Your task to perform on an android device: open app "Lyft - Rideshare, Bikes, Scooters & Transit" (install if not already installed) Image 0: 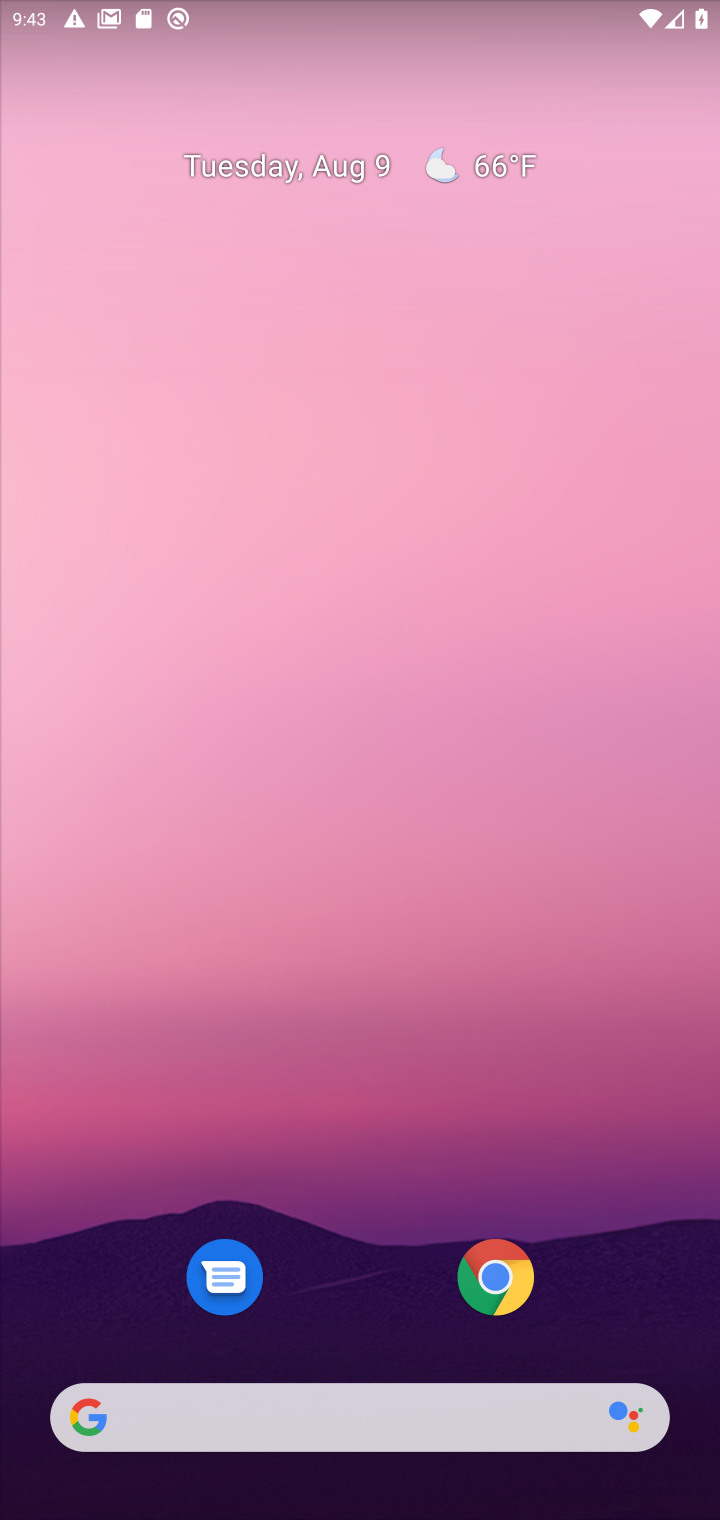
Step 0: drag from (378, 1342) to (286, 42)
Your task to perform on an android device: open app "Lyft - Rideshare, Bikes, Scooters & Transit" (install if not already installed) Image 1: 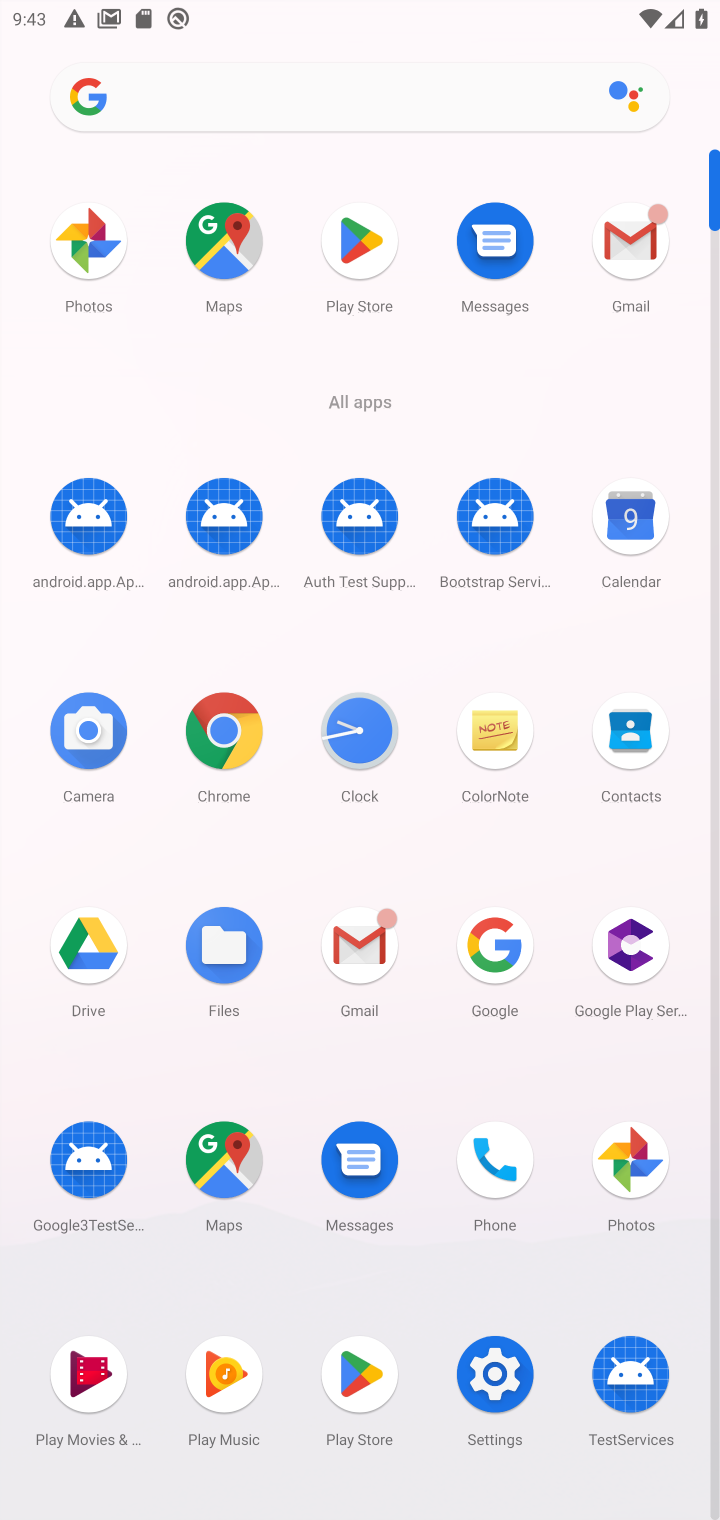
Step 1: click (346, 1400)
Your task to perform on an android device: open app "Lyft - Rideshare, Bikes, Scooters & Transit" (install if not already installed) Image 2: 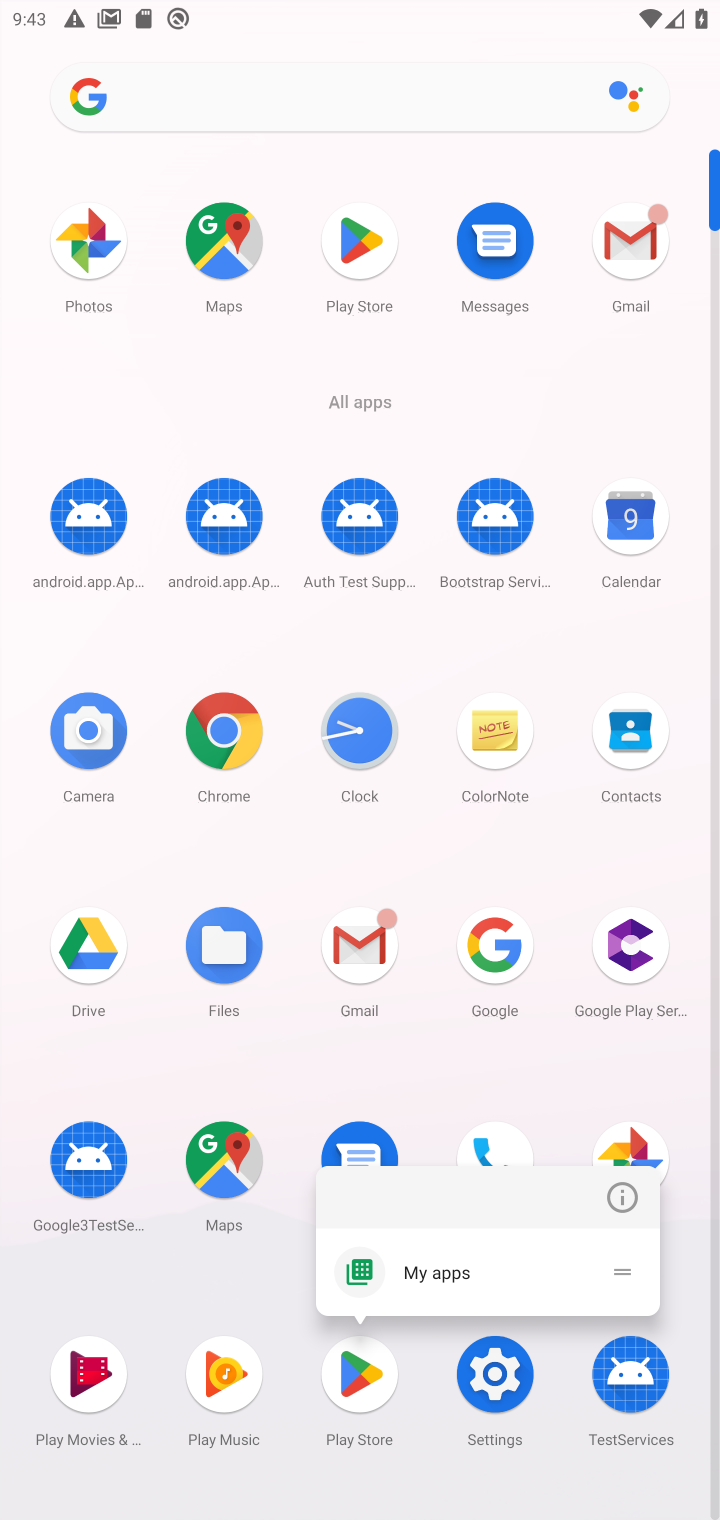
Step 2: click (350, 1374)
Your task to perform on an android device: open app "Lyft - Rideshare, Bikes, Scooters & Transit" (install if not already installed) Image 3: 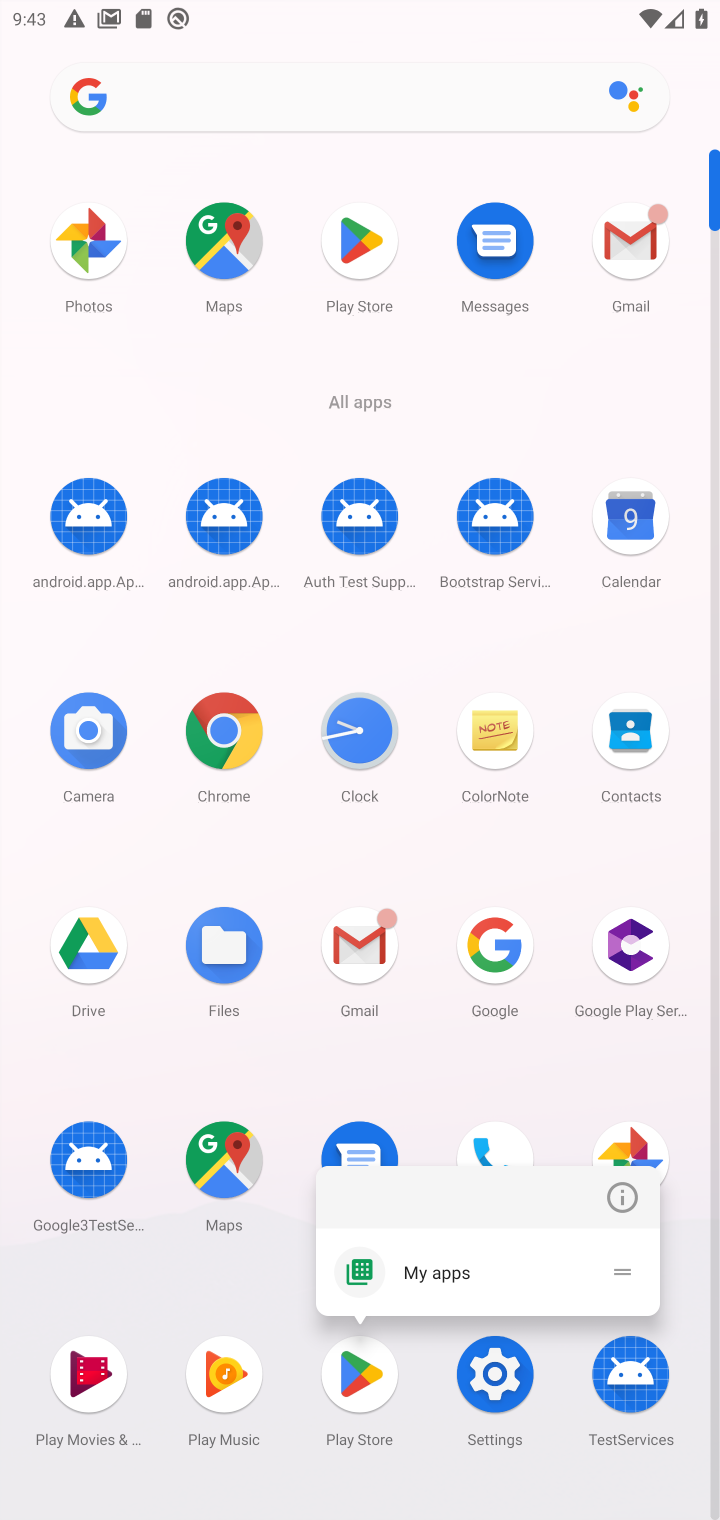
Step 3: click (356, 1410)
Your task to perform on an android device: open app "Lyft - Rideshare, Bikes, Scooters & Transit" (install if not already installed) Image 4: 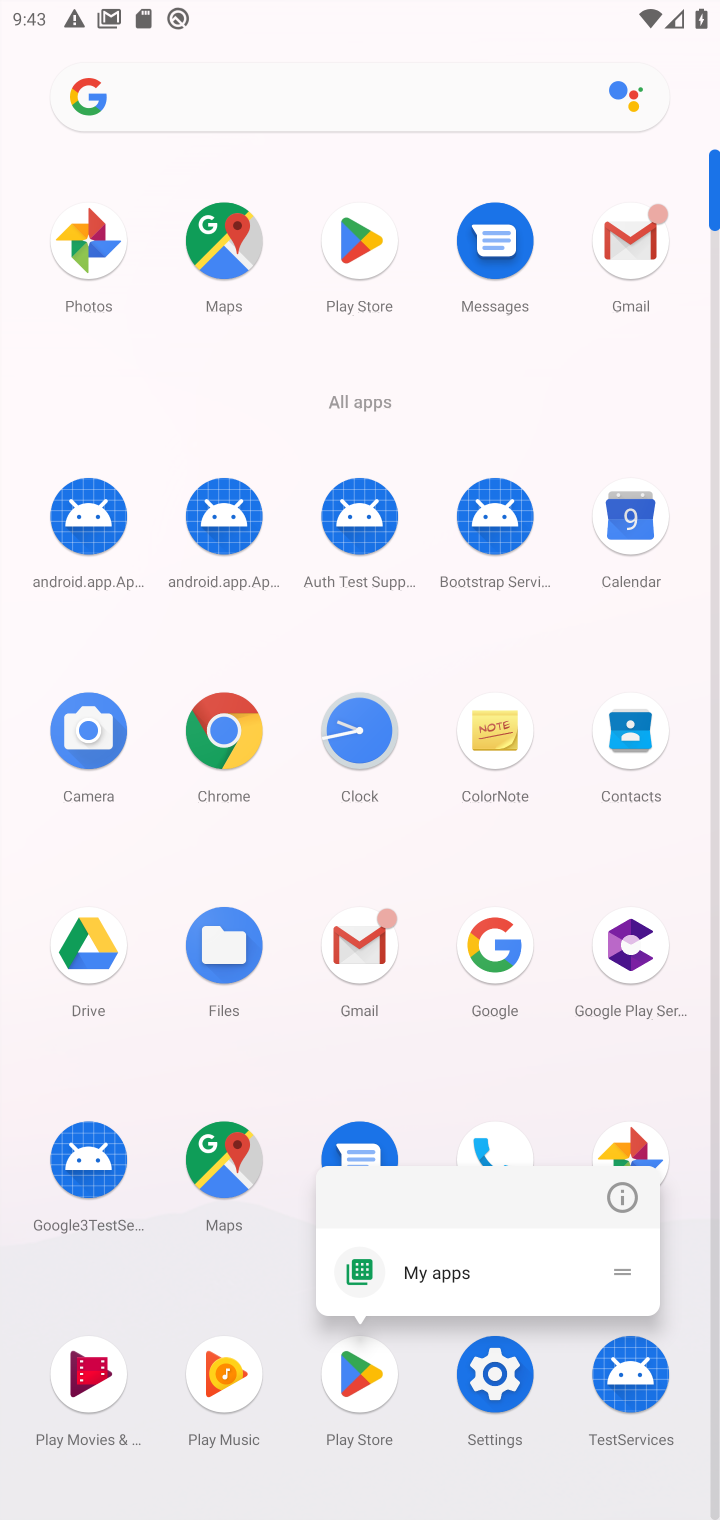
Step 4: click (357, 1412)
Your task to perform on an android device: open app "Lyft - Rideshare, Bikes, Scooters & Transit" (install if not already installed) Image 5: 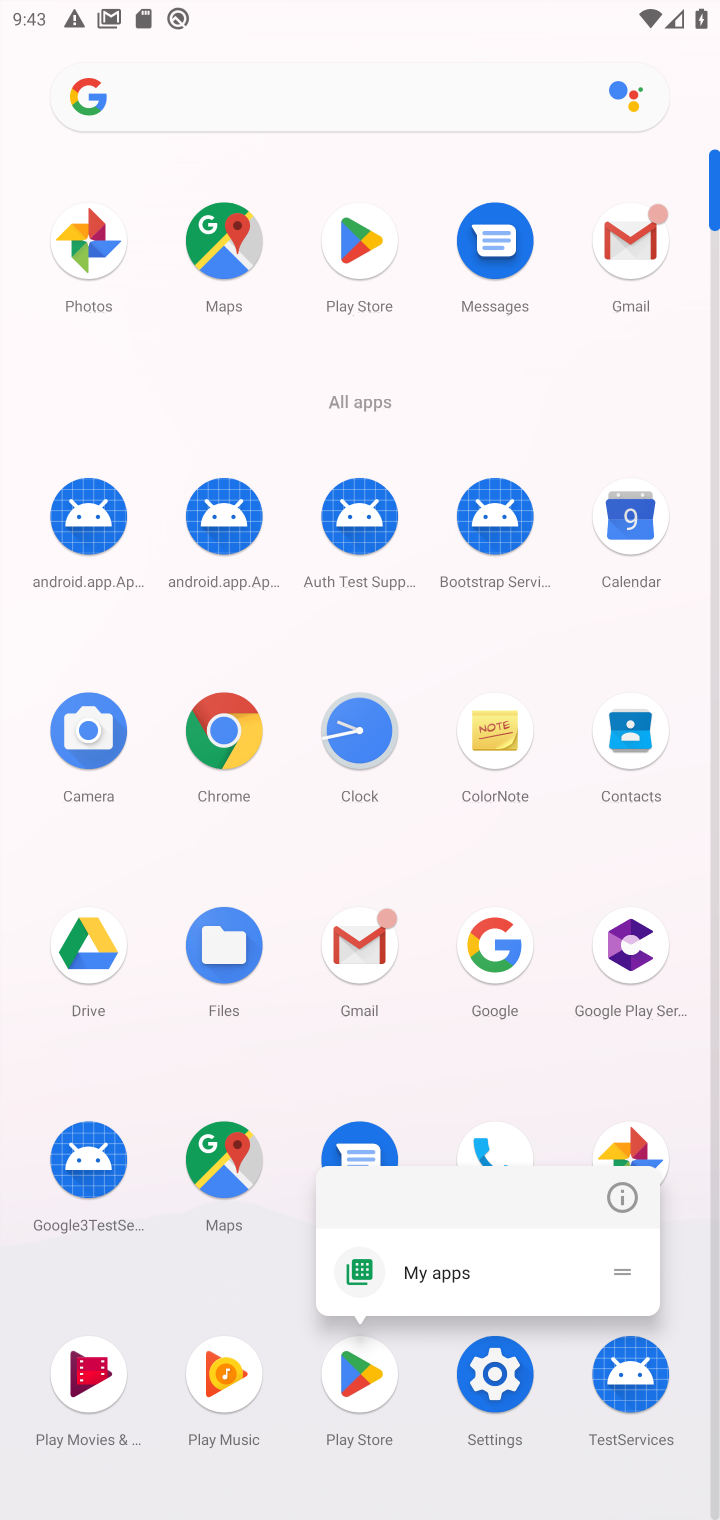
Step 5: click (368, 1390)
Your task to perform on an android device: open app "Lyft - Rideshare, Bikes, Scooters & Transit" (install if not already installed) Image 6: 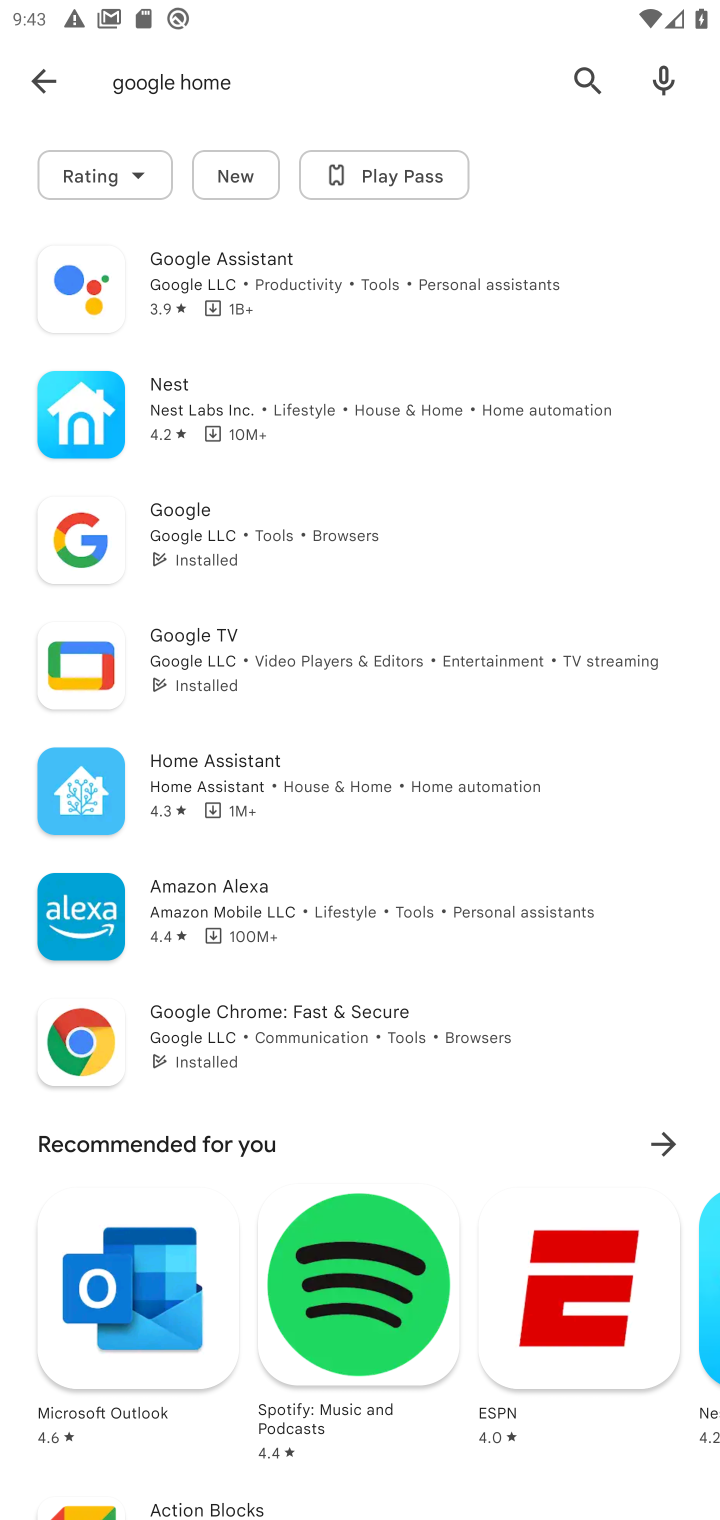
Step 6: click (578, 73)
Your task to perform on an android device: open app "Lyft - Rideshare, Bikes, Scooters & Transit" (install if not already installed) Image 7: 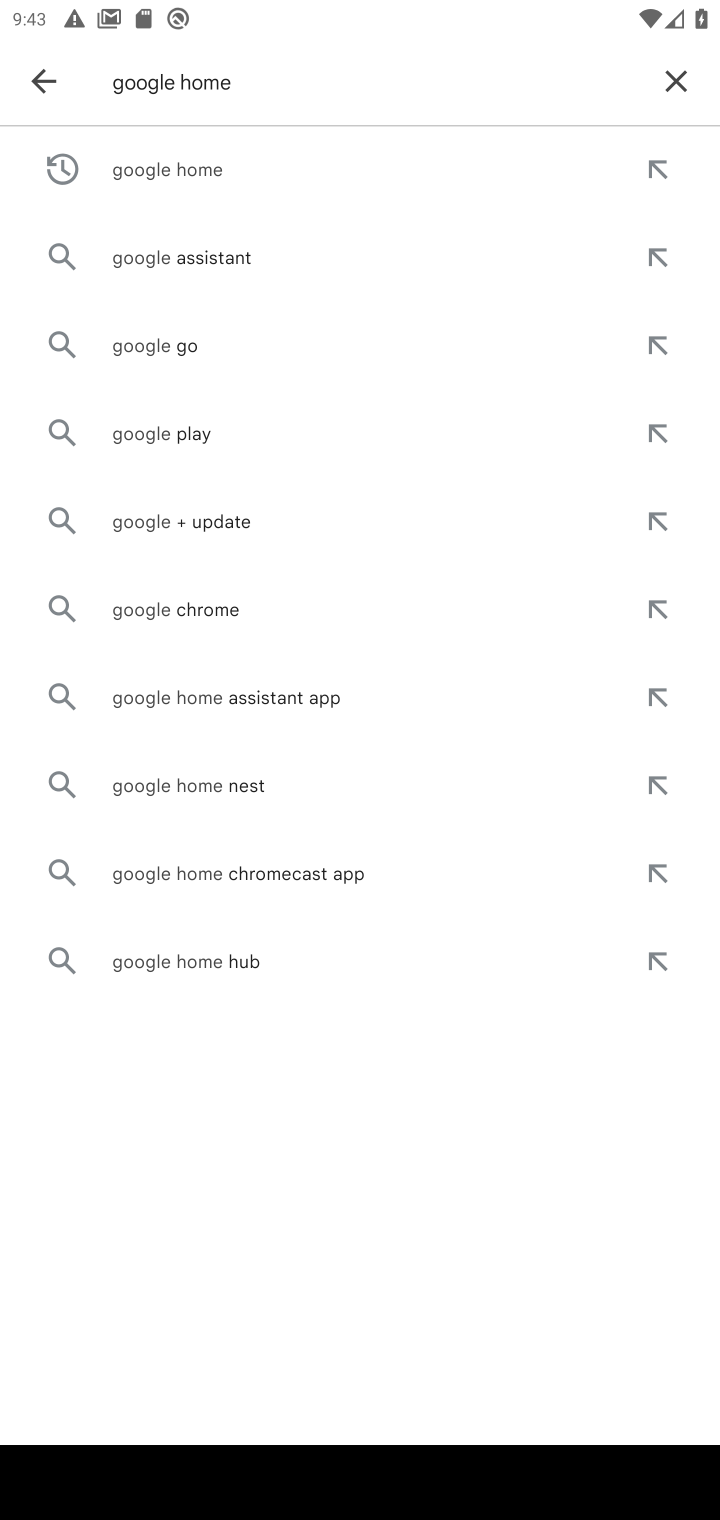
Step 7: click (668, 72)
Your task to perform on an android device: open app "Lyft - Rideshare, Bikes, Scooters & Transit" (install if not already installed) Image 8: 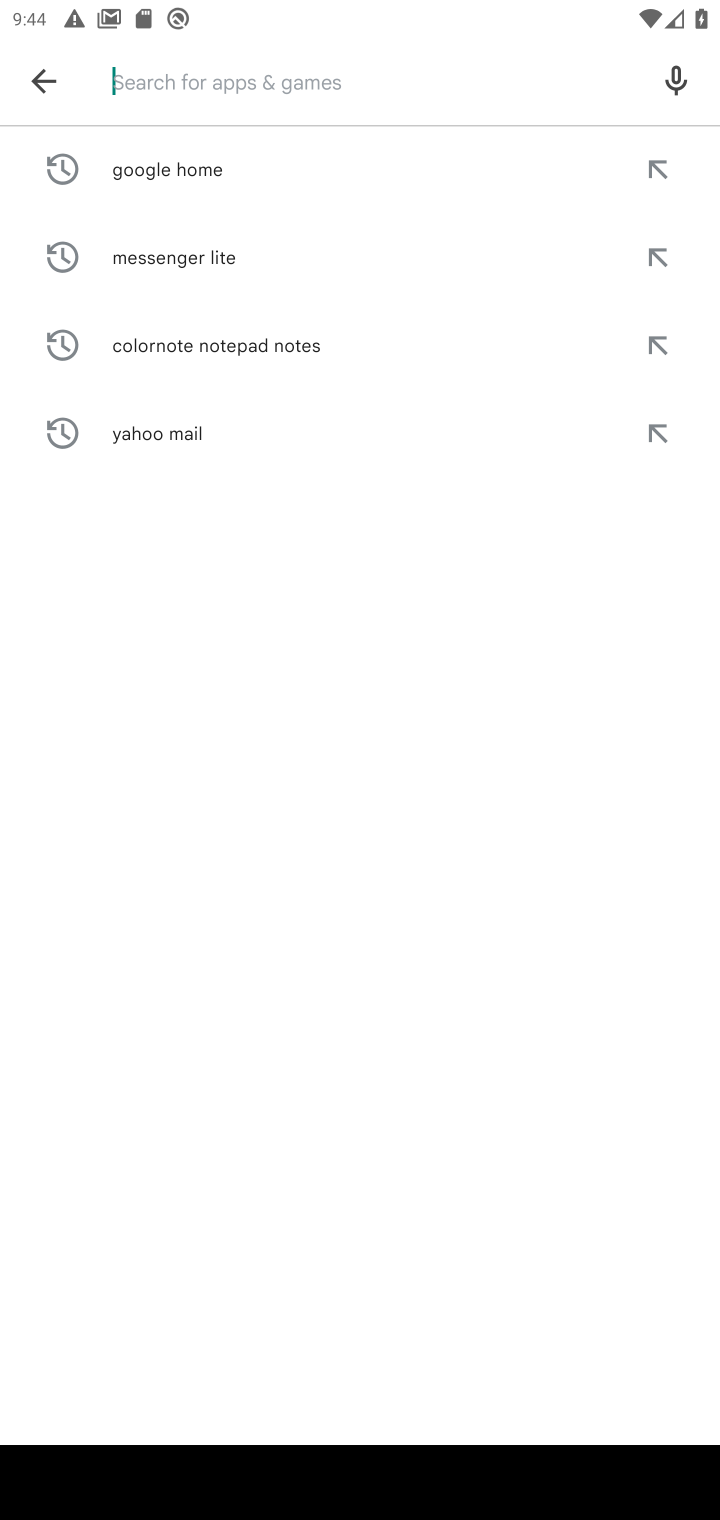
Step 8: type "Lyft - Rideshare, Bikes, Scooters & Transit"
Your task to perform on an android device: open app "Lyft - Rideshare, Bikes, Scooters & Transit" (install if not already installed) Image 9: 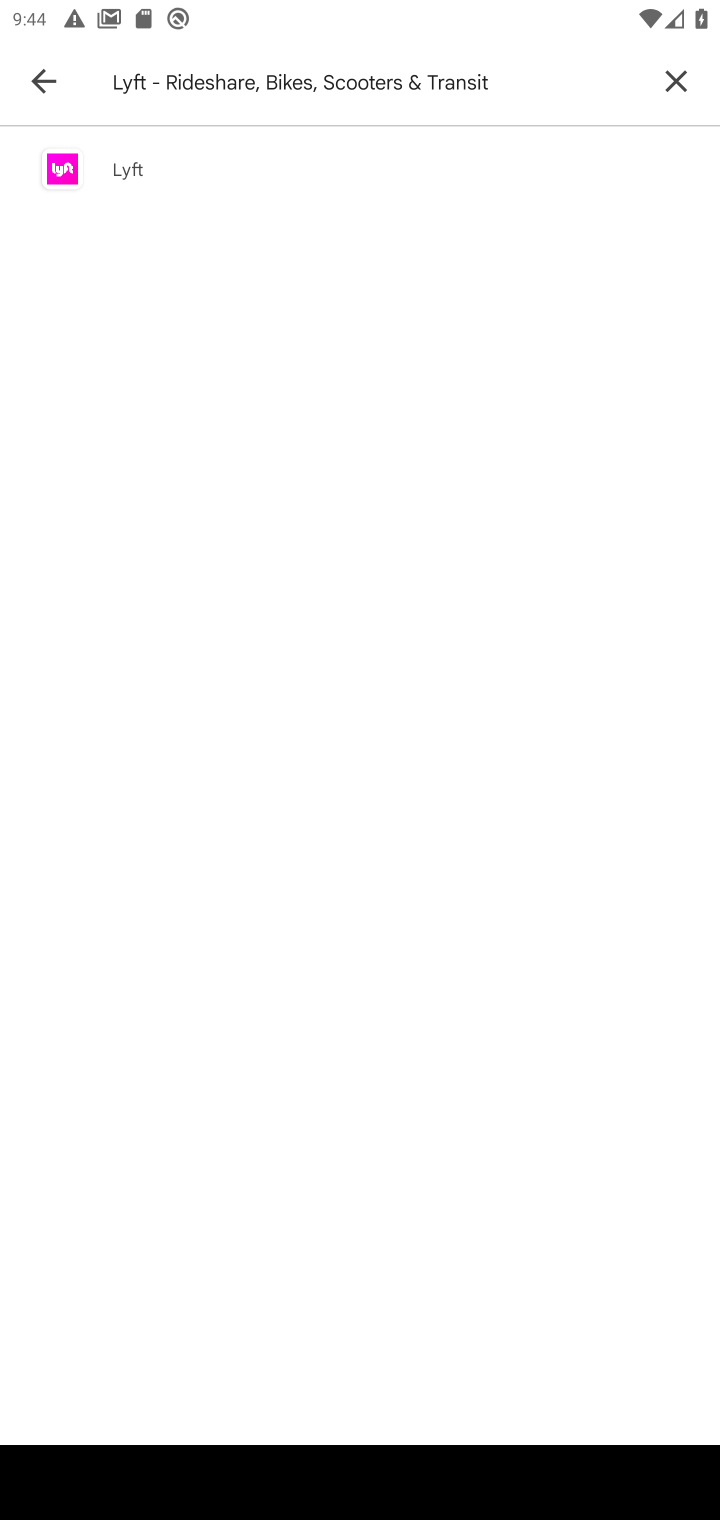
Step 9: click (173, 149)
Your task to perform on an android device: open app "Lyft - Rideshare, Bikes, Scooters & Transit" (install if not already installed) Image 10: 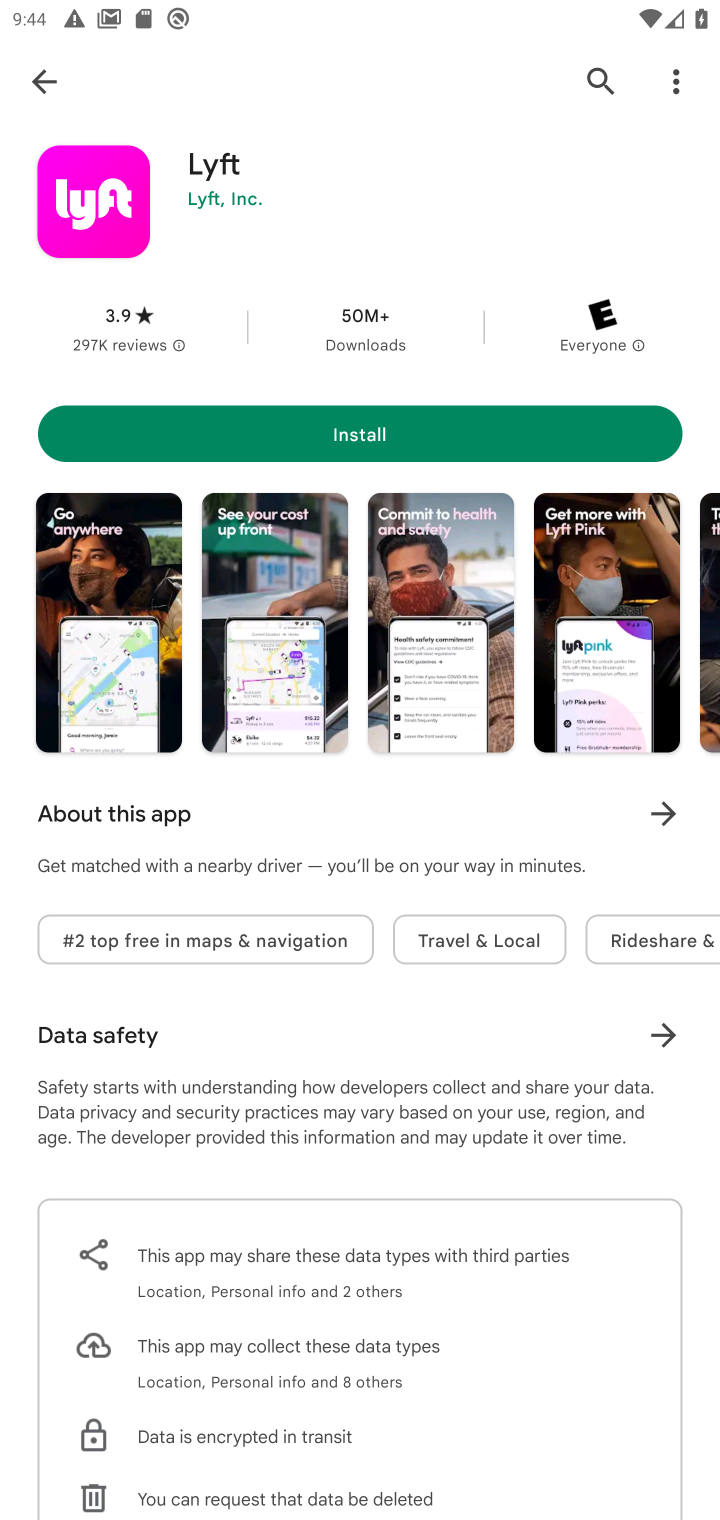
Step 10: click (349, 412)
Your task to perform on an android device: open app "Lyft - Rideshare, Bikes, Scooters & Transit" (install if not already installed) Image 11: 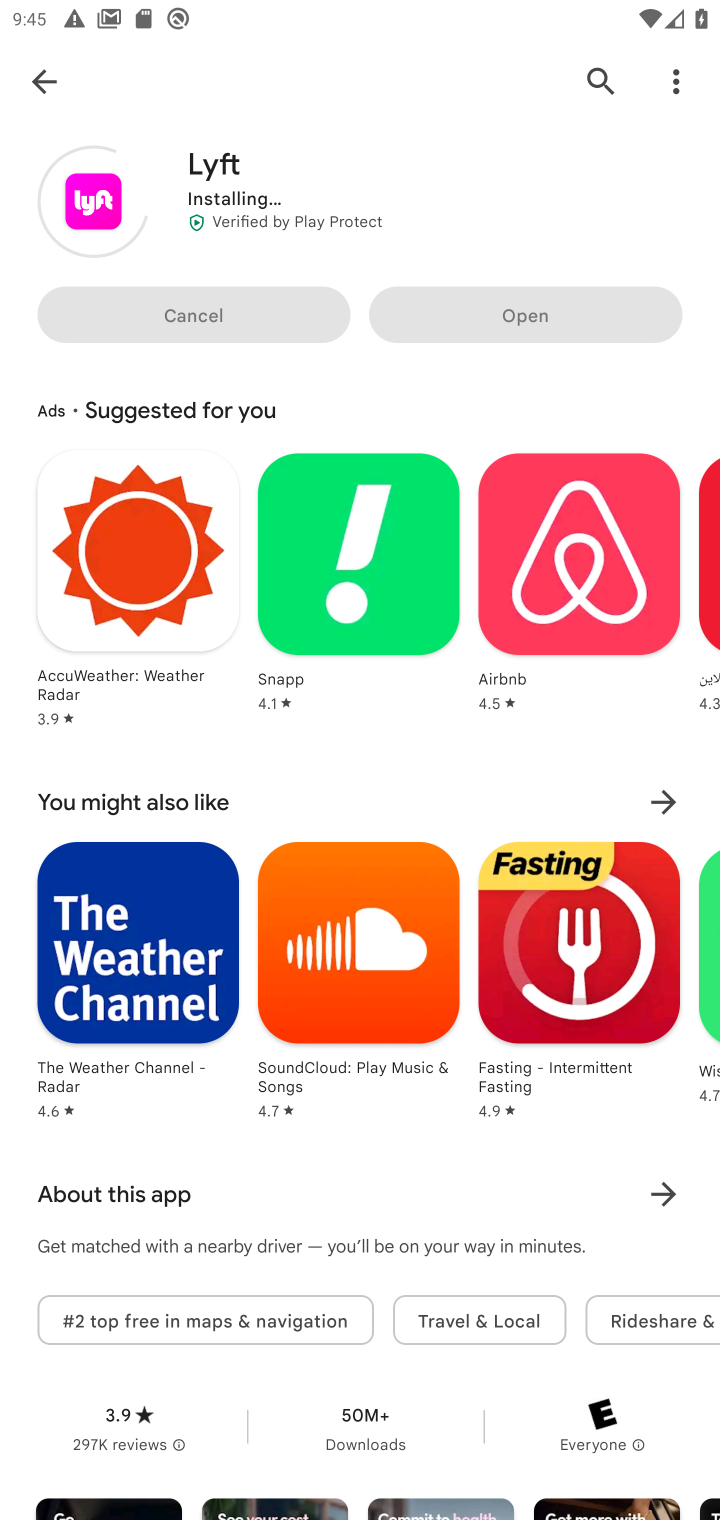
Step 11: click (38, 202)
Your task to perform on an android device: open app "Lyft - Rideshare, Bikes, Scooters & Transit" (install if not already installed) Image 12: 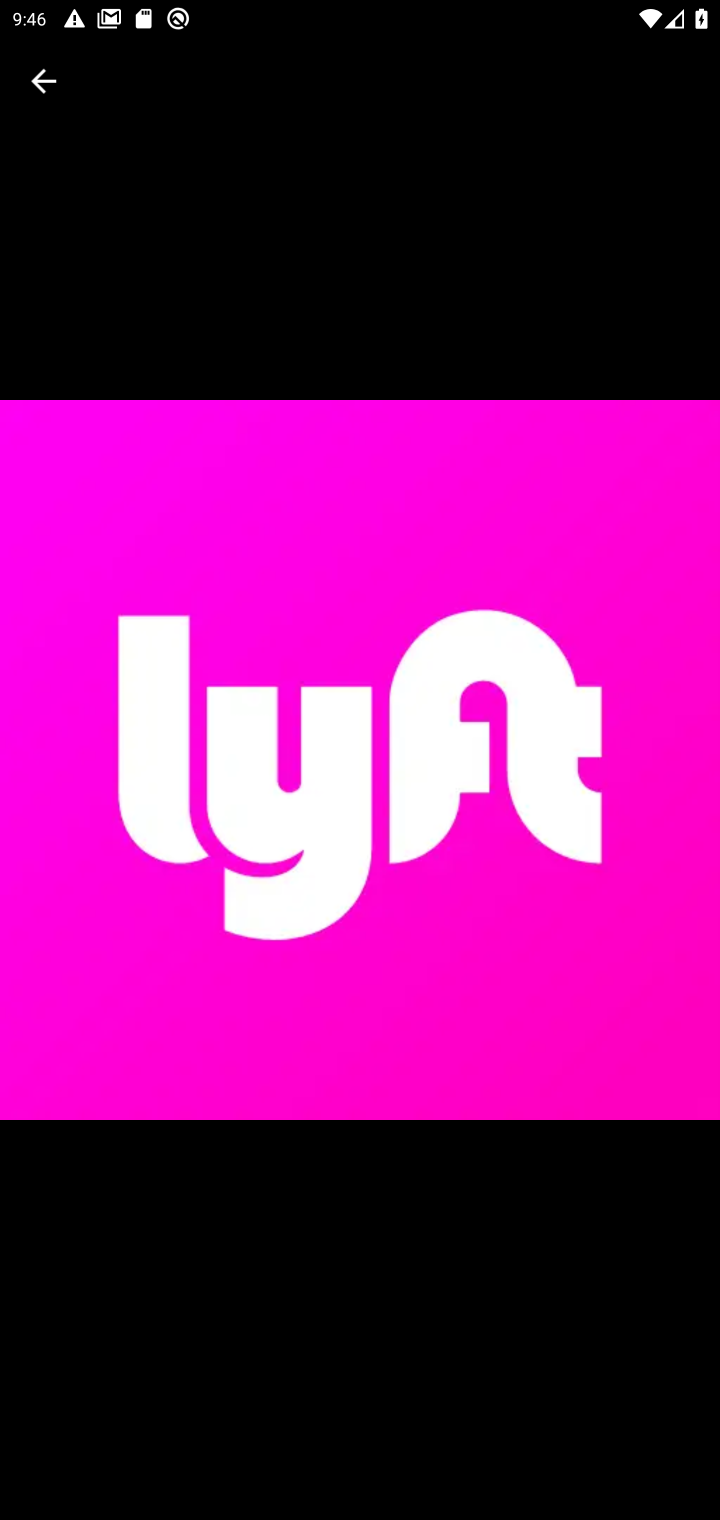
Step 12: click (12, 86)
Your task to perform on an android device: open app "Lyft - Rideshare, Bikes, Scooters & Transit" (install if not already installed) Image 13: 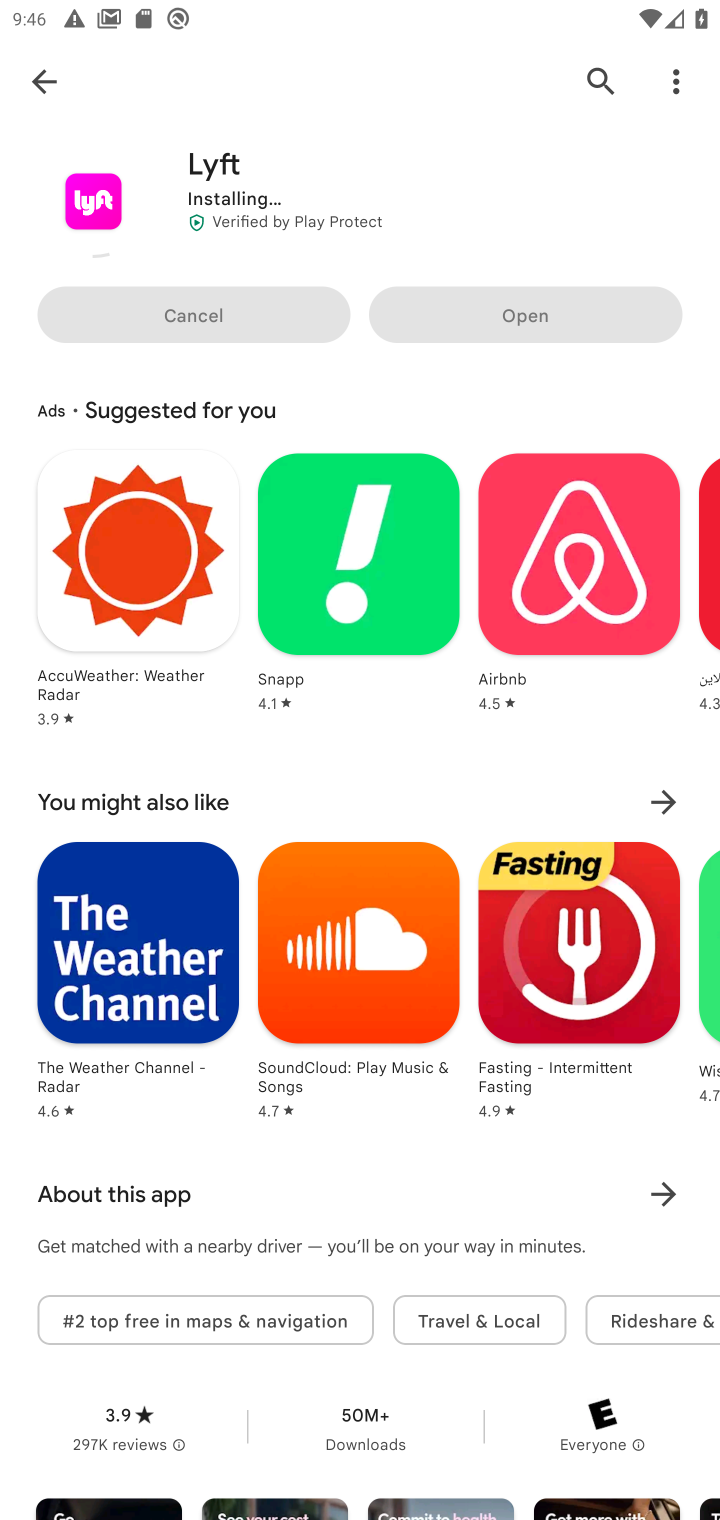
Step 13: press back button
Your task to perform on an android device: open app "Lyft - Rideshare, Bikes, Scooters & Transit" (install if not already installed) Image 14: 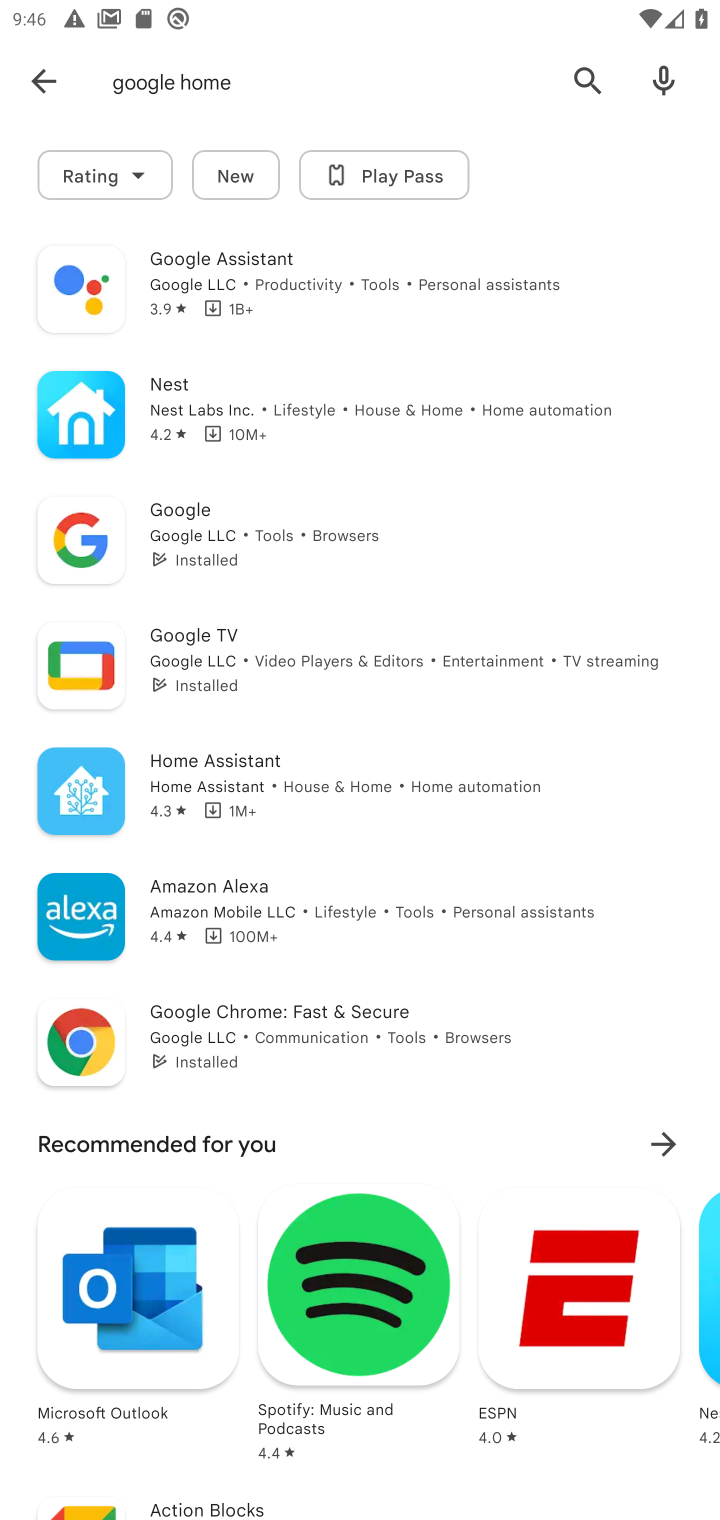
Step 14: click (28, 79)
Your task to perform on an android device: open app "Lyft - Rideshare, Bikes, Scooters & Transit" (install if not already installed) Image 15: 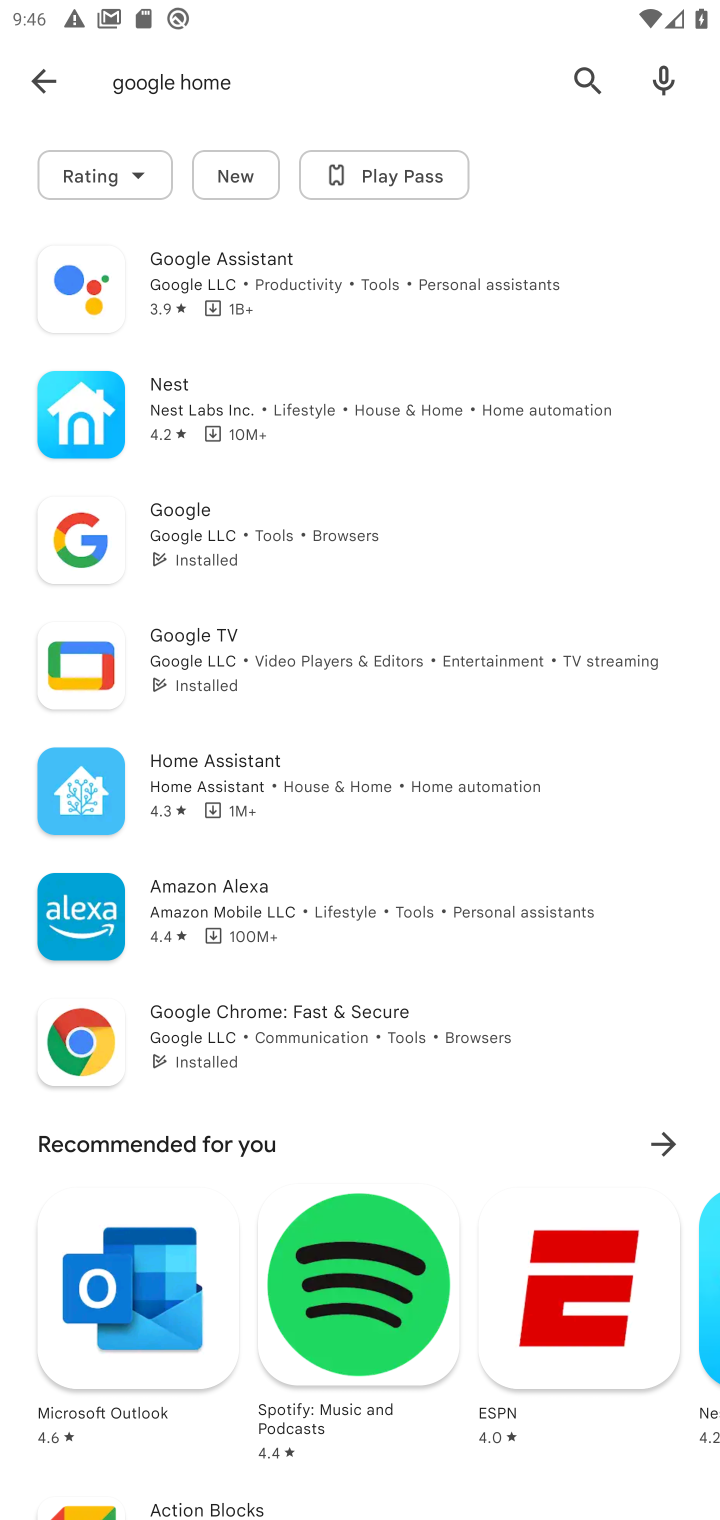
Step 15: press home button
Your task to perform on an android device: open app "Lyft - Rideshare, Bikes, Scooters & Transit" (install if not already installed) Image 16: 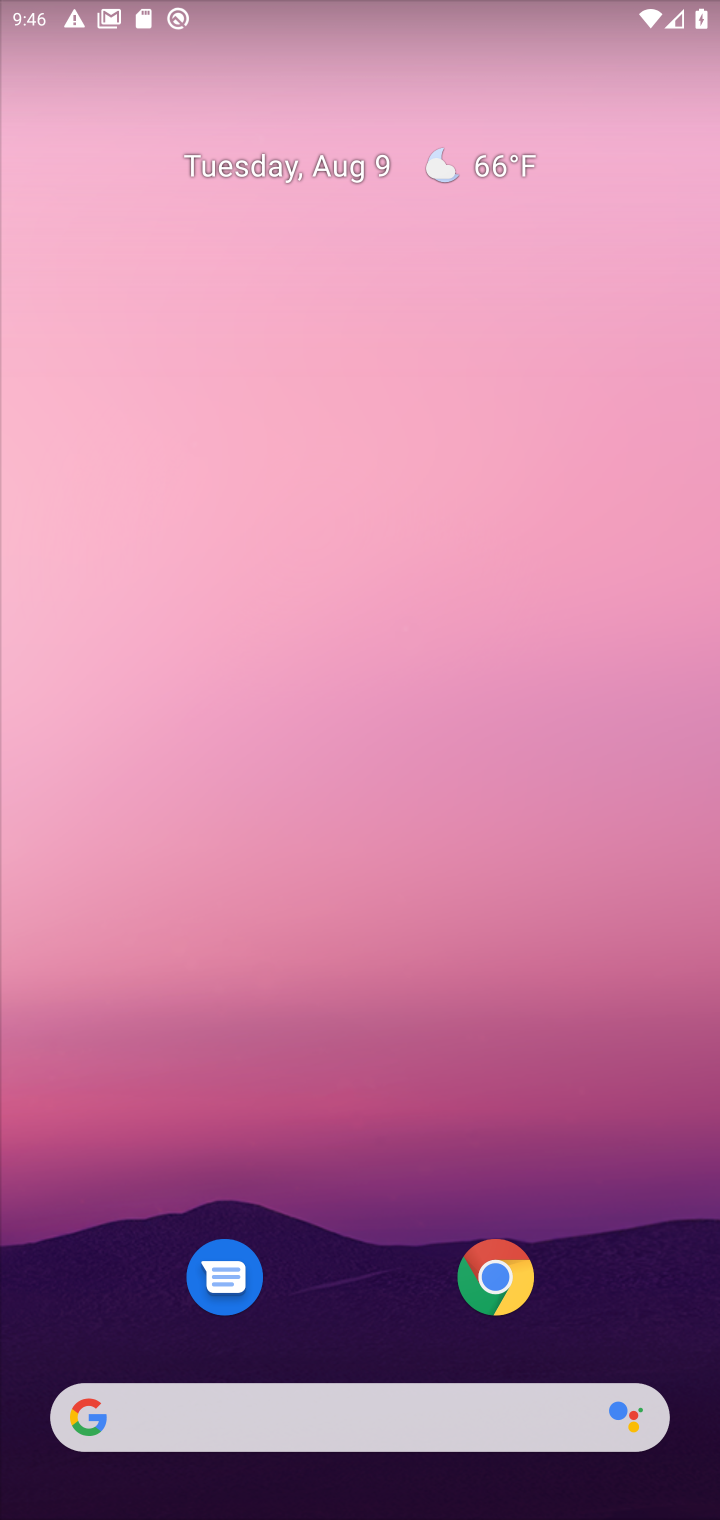
Step 16: drag from (355, 1324) to (159, 59)
Your task to perform on an android device: open app "Lyft - Rideshare, Bikes, Scooters & Transit" (install if not already installed) Image 17: 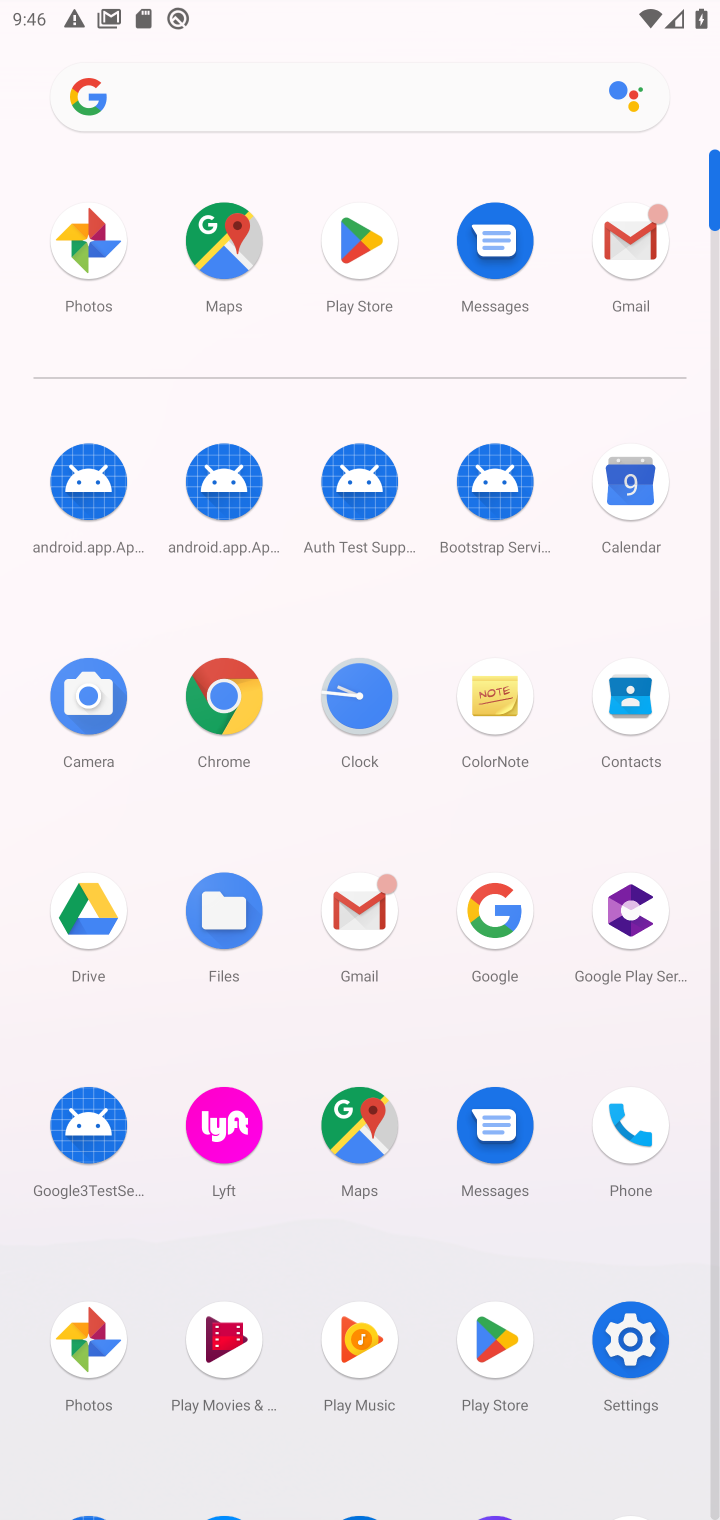
Step 17: click (230, 1139)
Your task to perform on an android device: open app "Lyft - Rideshare, Bikes, Scooters & Transit" (install if not already installed) Image 18: 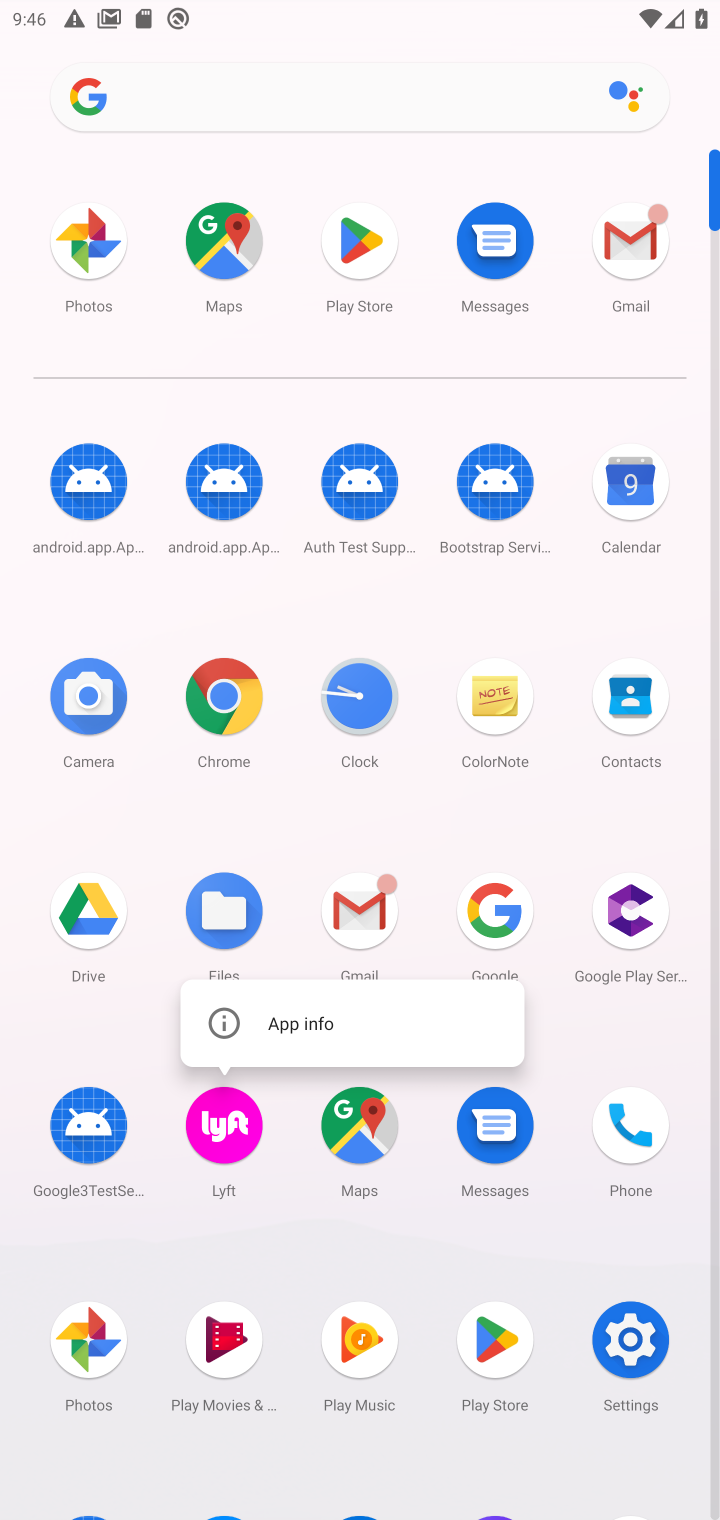
Step 18: click (233, 1132)
Your task to perform on an android device: open app "Lyft - Rideshare, Bikes, Scooters & Transit" (install if not already installed) Image 19: 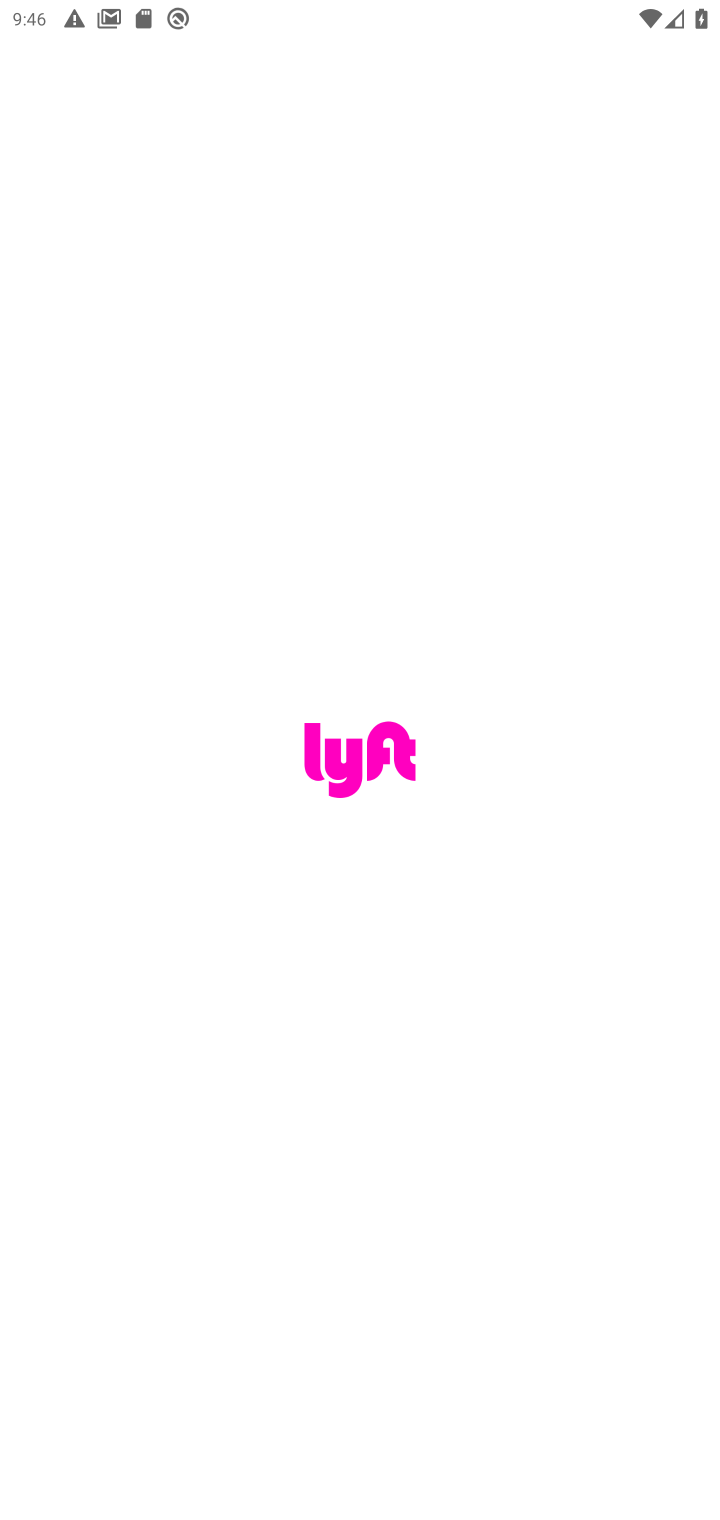
Step 19: task complete